Your task to perform on an android device: uninstall "Microsoft Excel" Image 0: 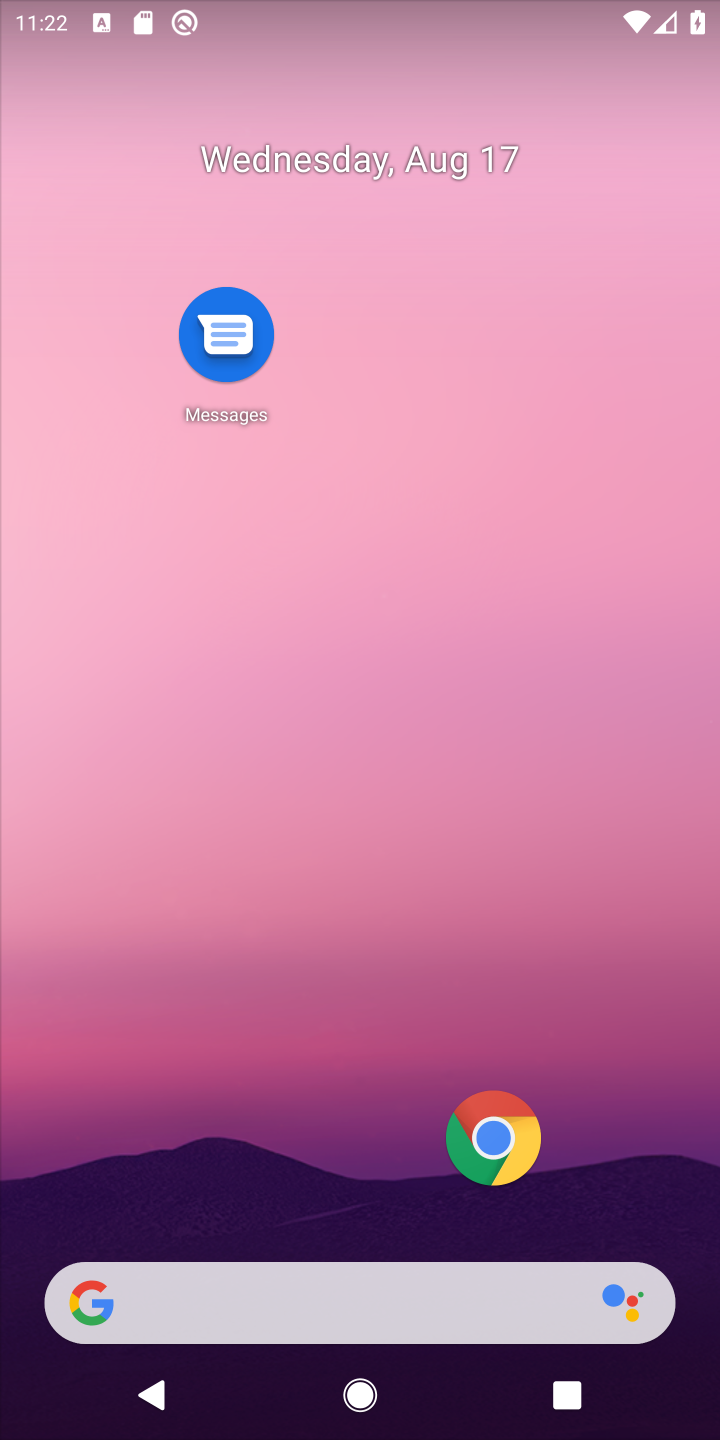
Step 0: drag from (319, 1240) to (350, 483)
Your task to perform on an android device: uninstall "Microsoft Excel" Image 1: 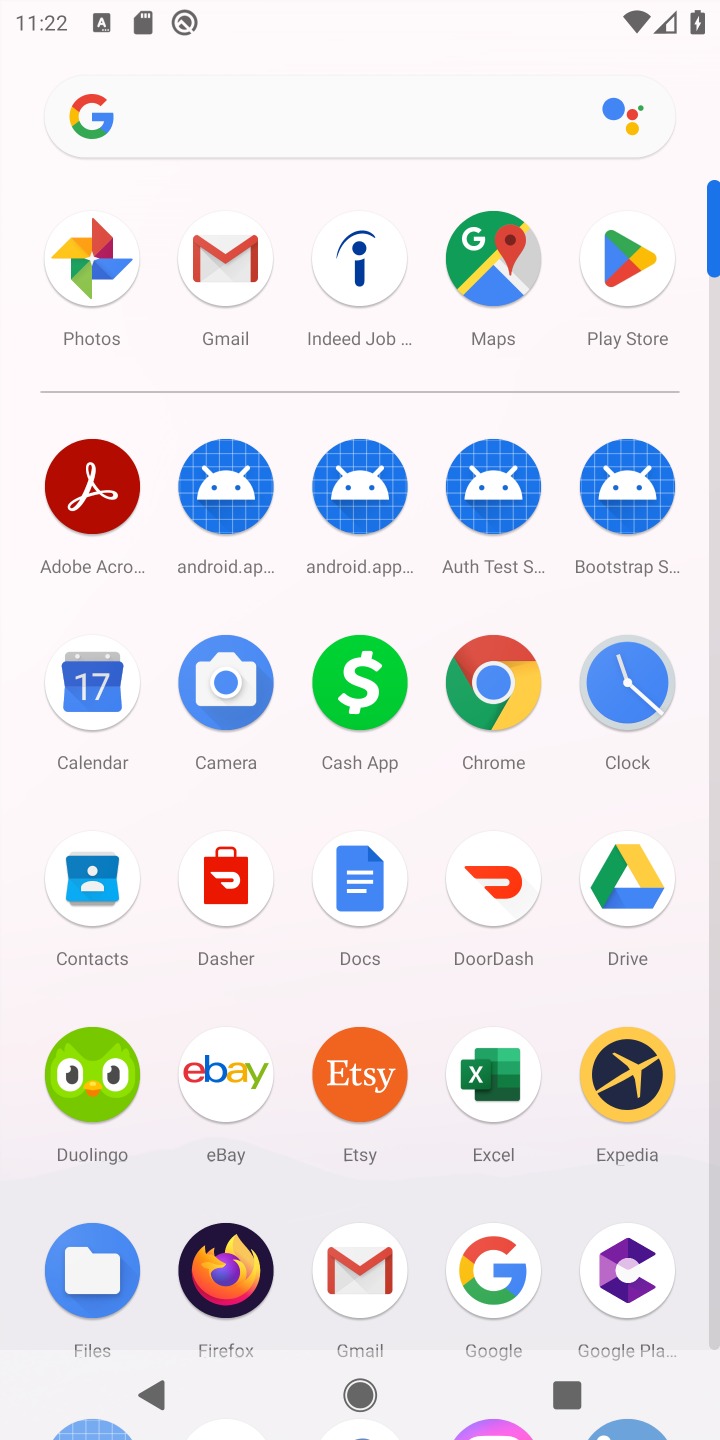
Step 1: click (634, 258)
Your task to perform on an android device: uninstall "Microsoft Excel" Image 2: 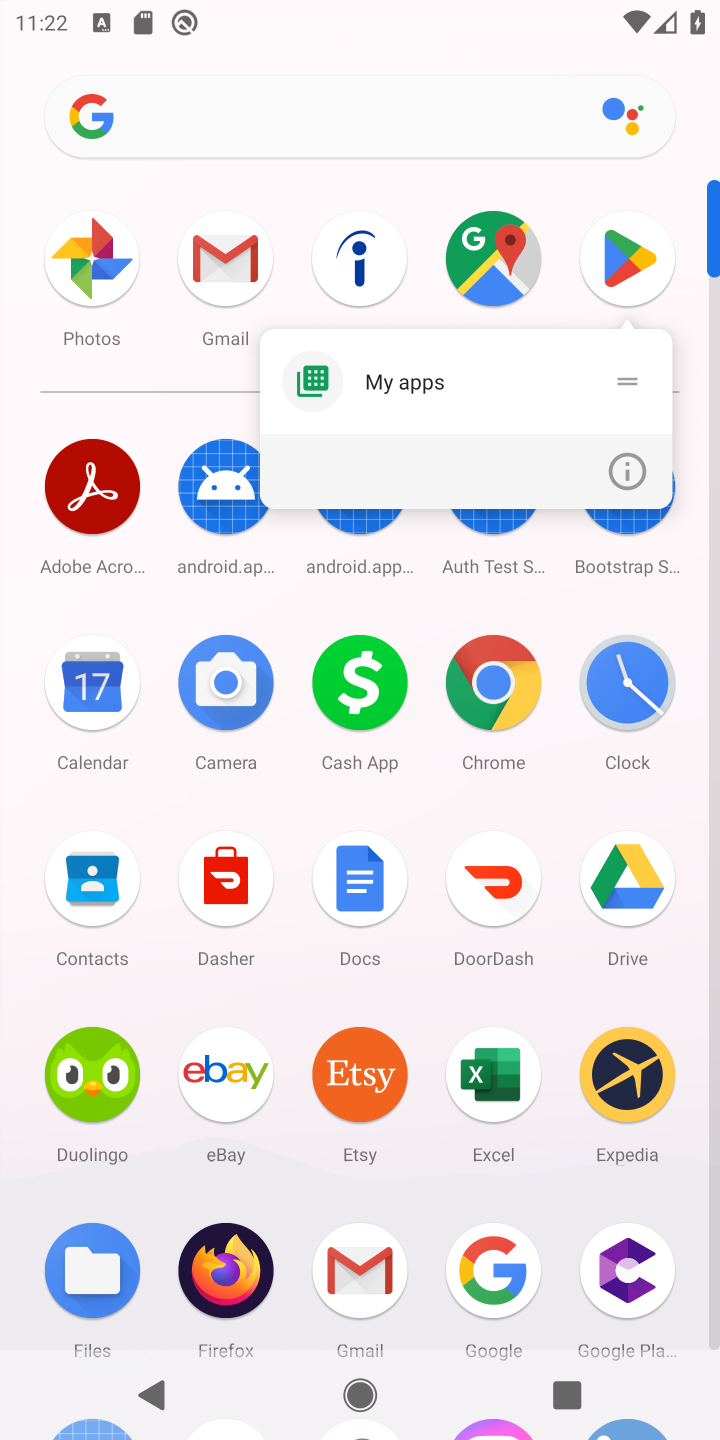
Step 2: click (634, 258)
Your task to perform on an android device: uninstall "Microsoft Excel" Image 3: 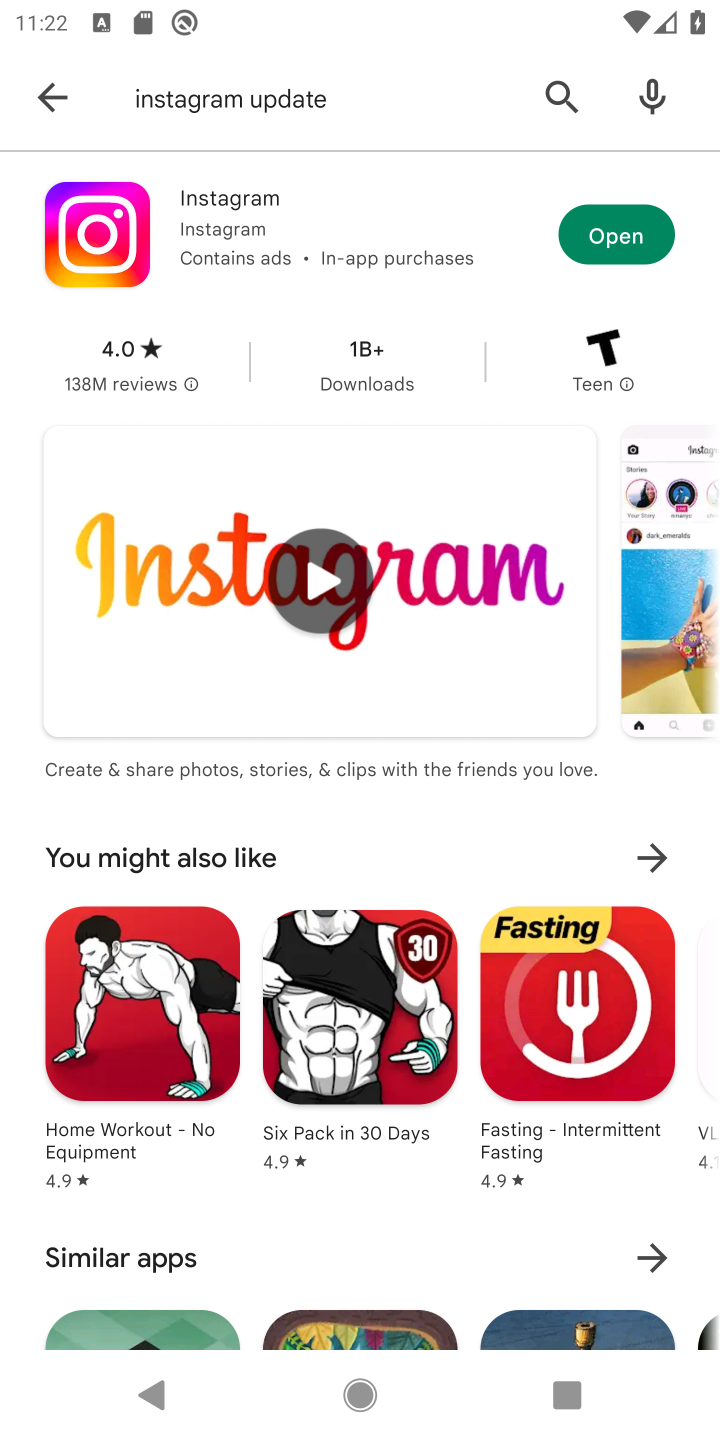
Step 3: click (28, 98)
Your task to perform on an android device: uninstall "Microsoft Excel" Image 4: 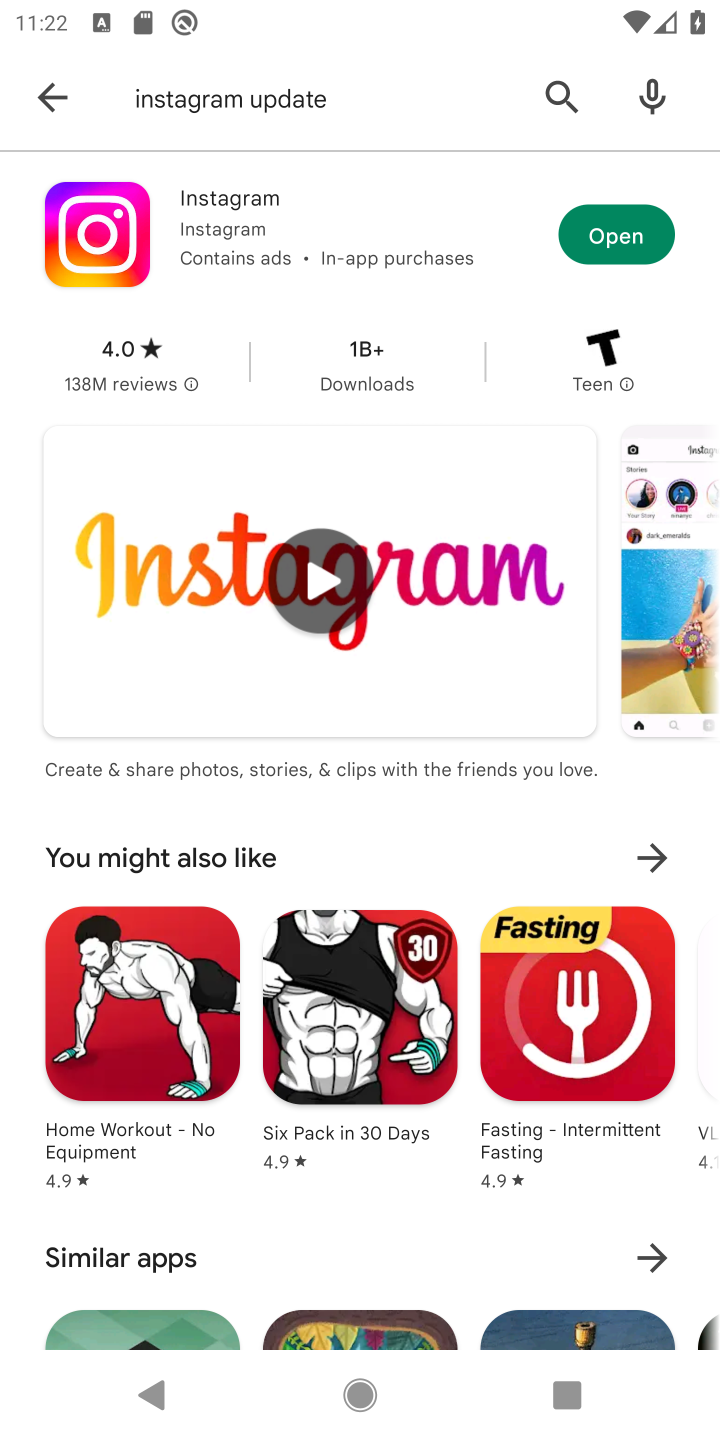
Step 4: click (68, 89)
Your task to perform on an android device: uninstall "Microsoft Excel" Image 5: 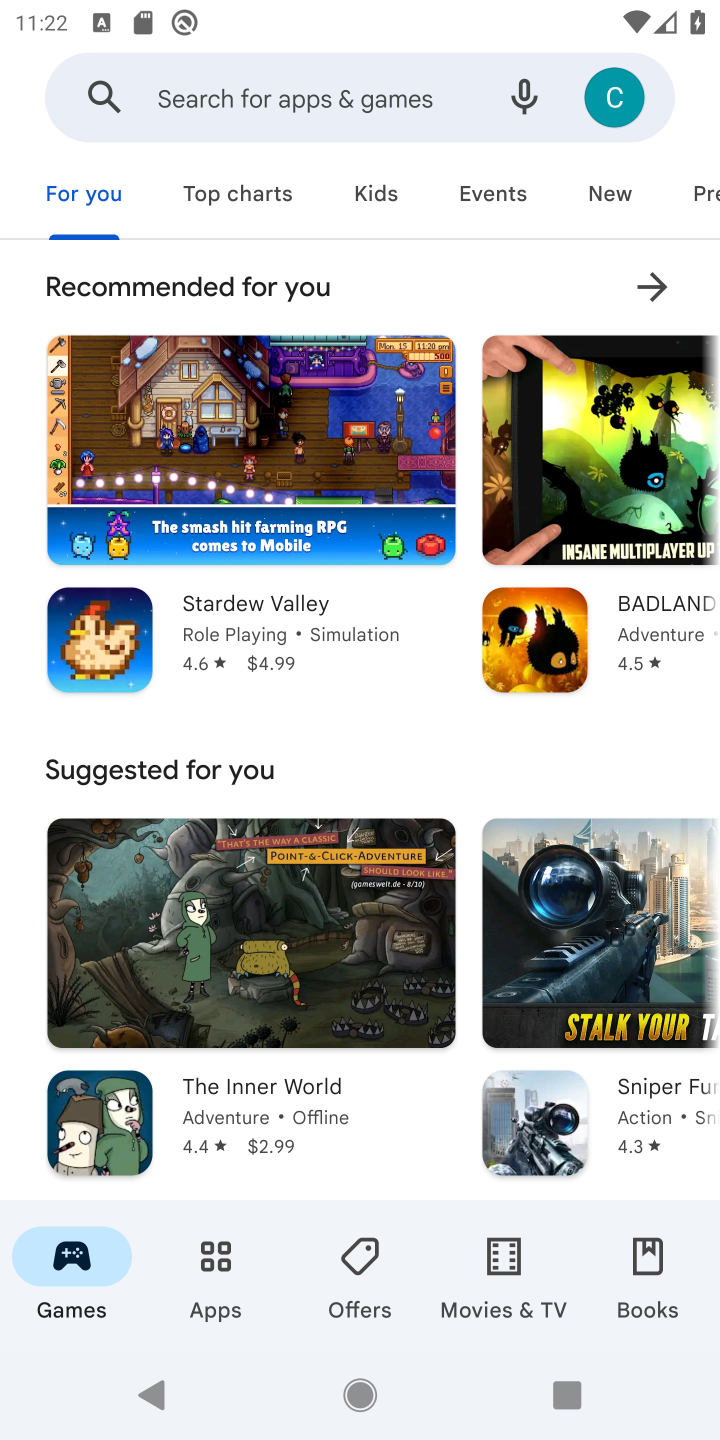
Step 5: click (389, 80)
Your task to perform on an android device: uninstall "Microsoft Excel" Image 6: 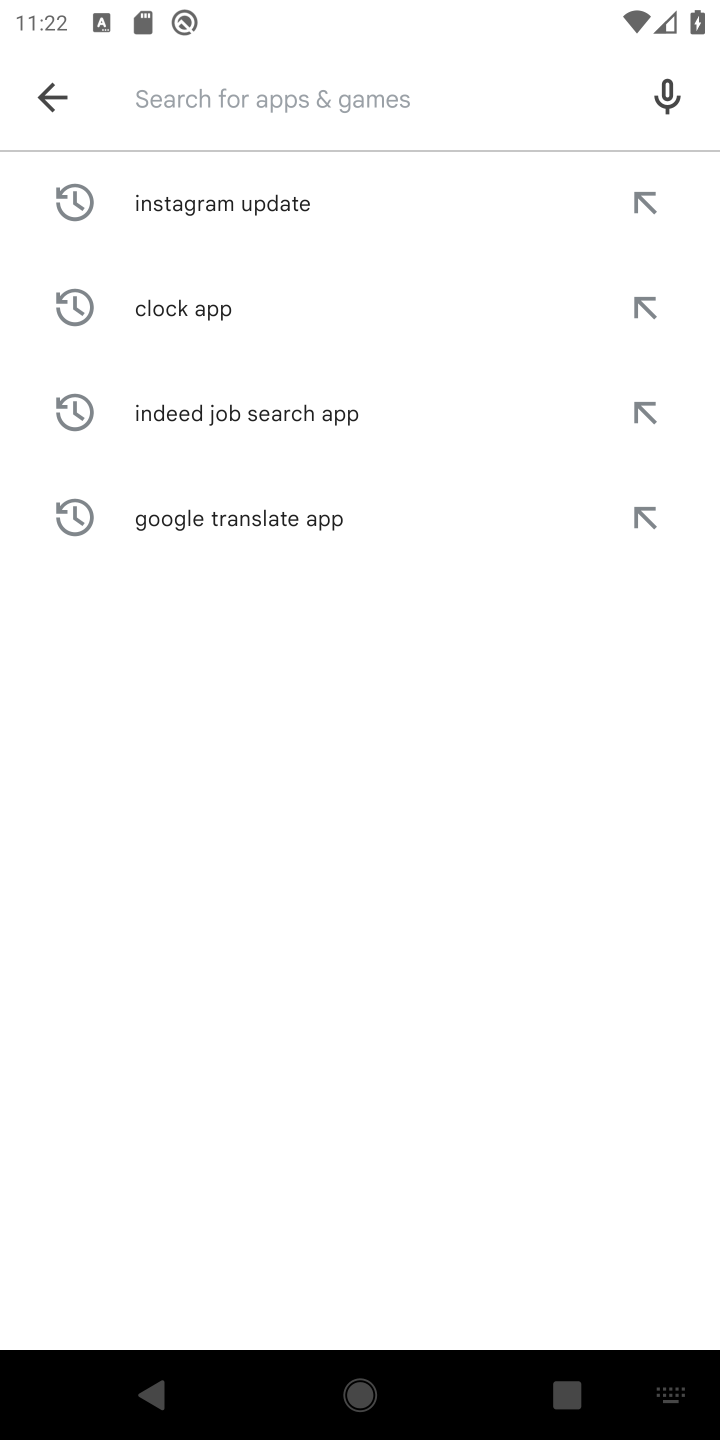
Step 6: type "Microsoft Excel "
Your task to perform on an android device: uninstall "Microsoft Excel" Image 7: 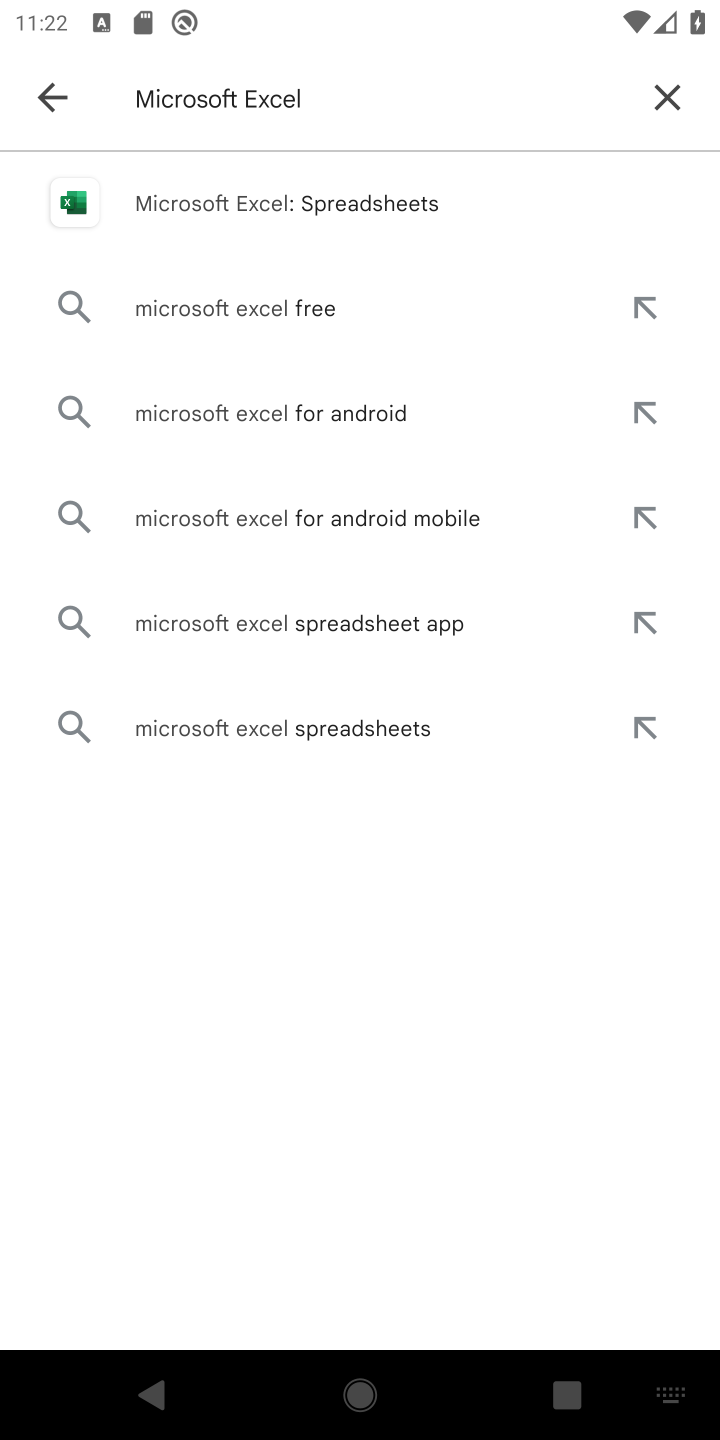
Step 7: click (256, 415)
Your task to perform on an android device: uninstall "Microsoft Excel" Image 8: 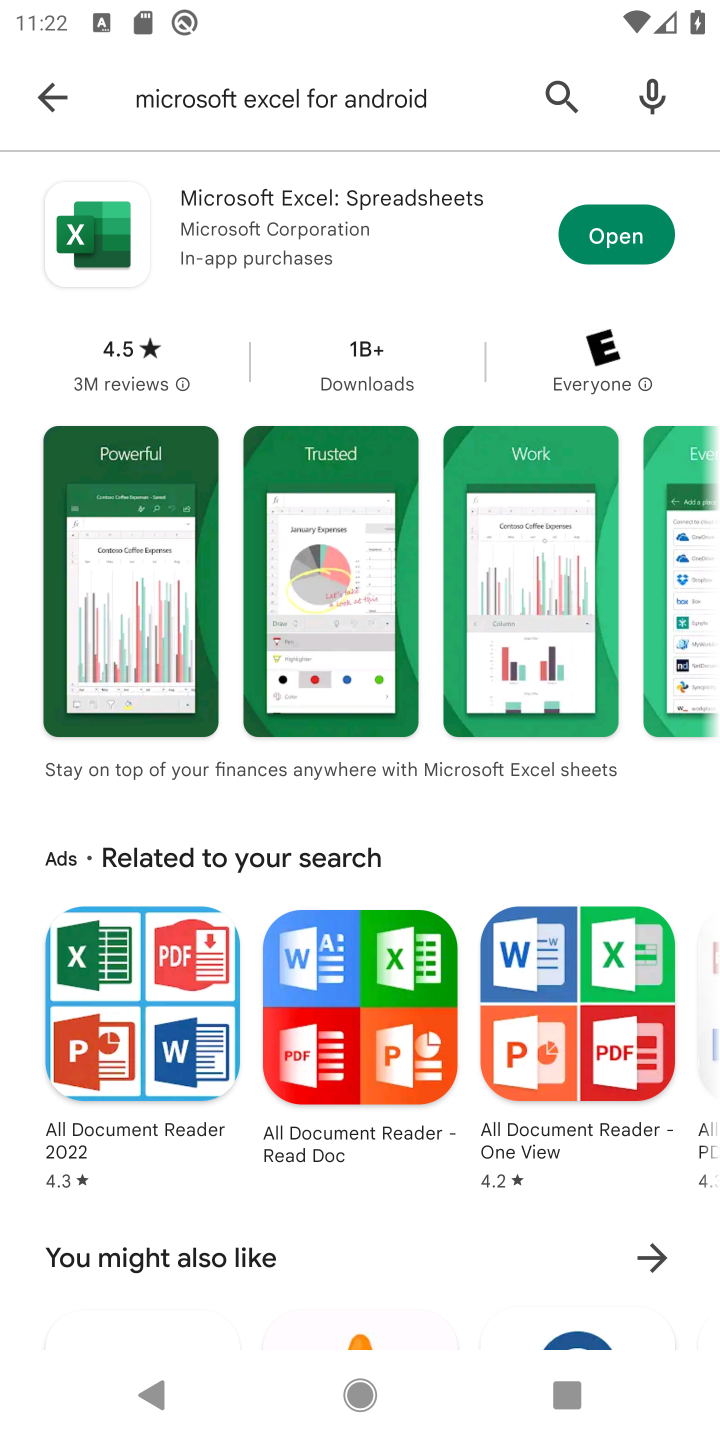
Step 8: click (641, 223)
Your task to perform on an android device: uninstall "Microsoft Excel" Image 9: 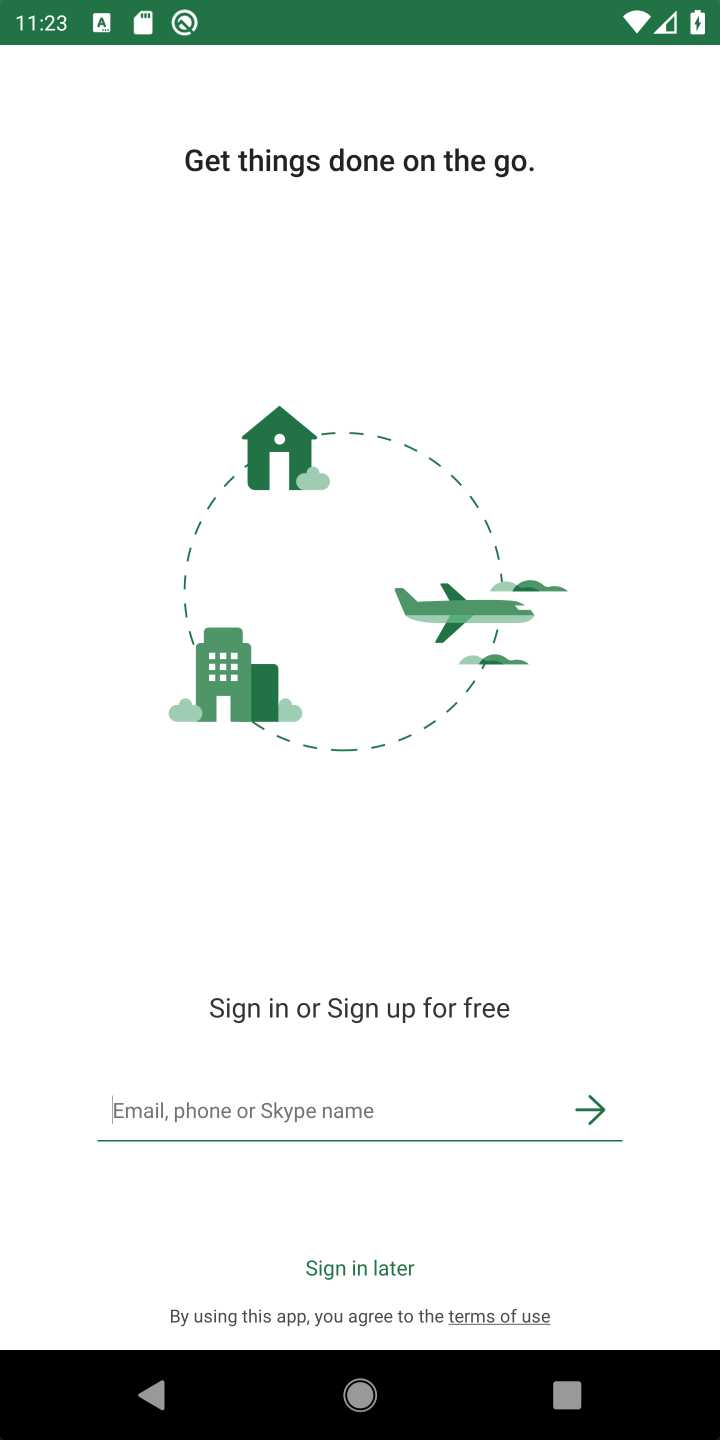
Step 9: press back button
Your task to perform on an android device: uninstall "Microsoft Excel" Image 10: 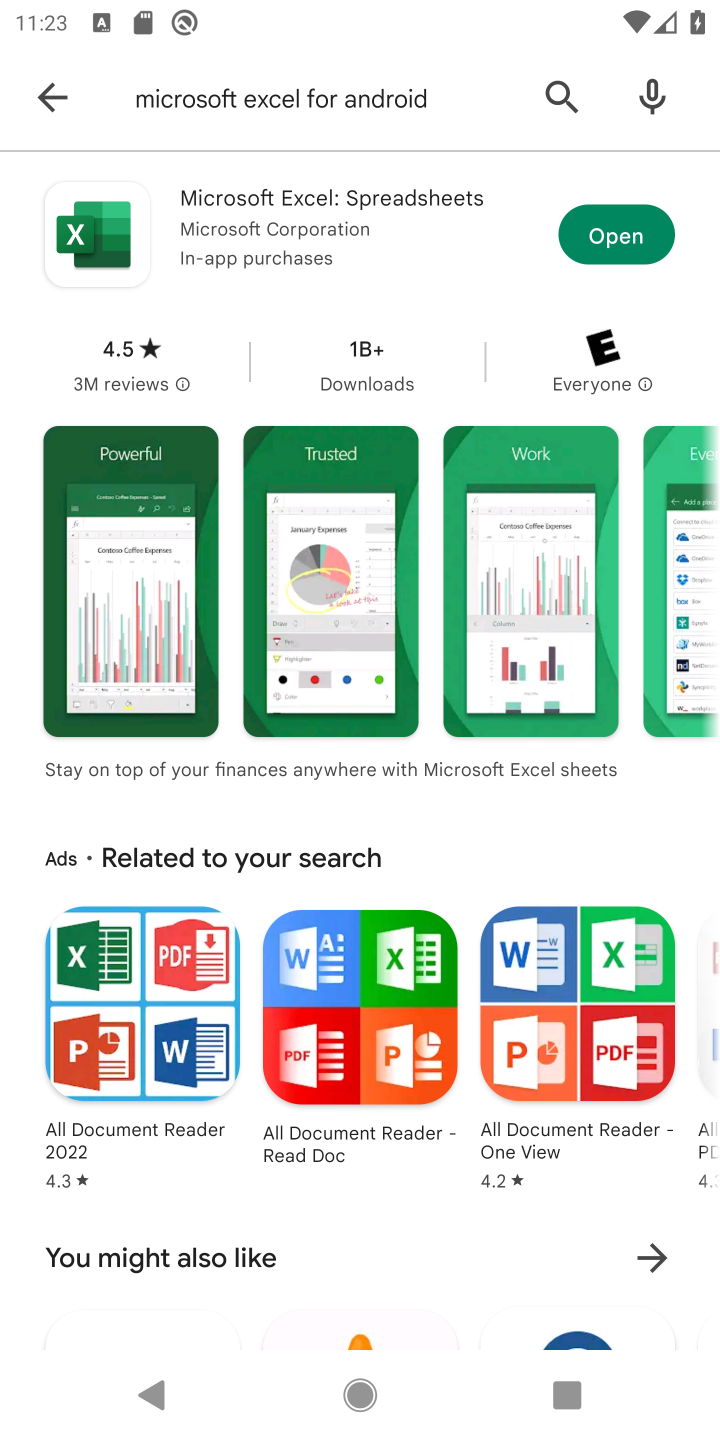
Step 10: click (323, 224)
Your task to perform on an android device: uninstall "Microsoft Excel" Image 11: 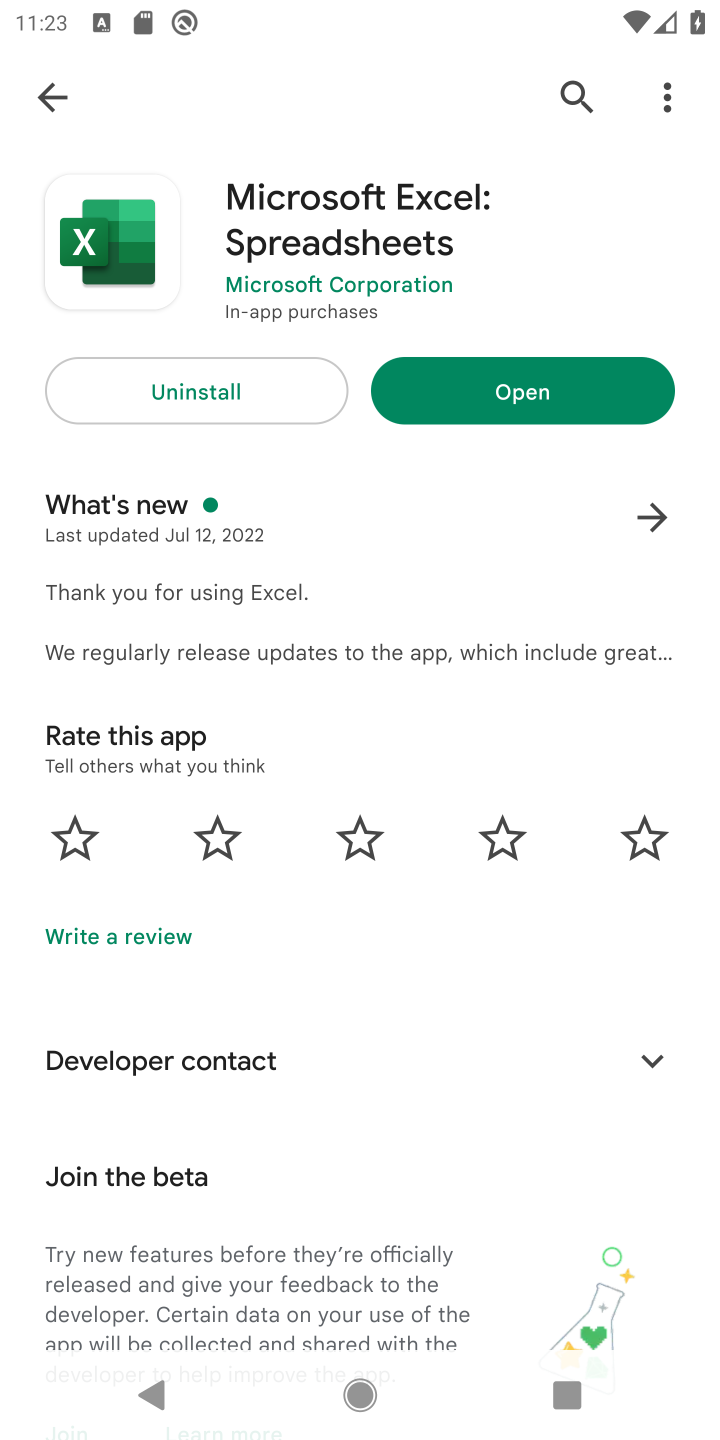
Step 11: click (164, 394)
Your task to perform on an android device: uninstall "Microsoft Excel" Image 12: 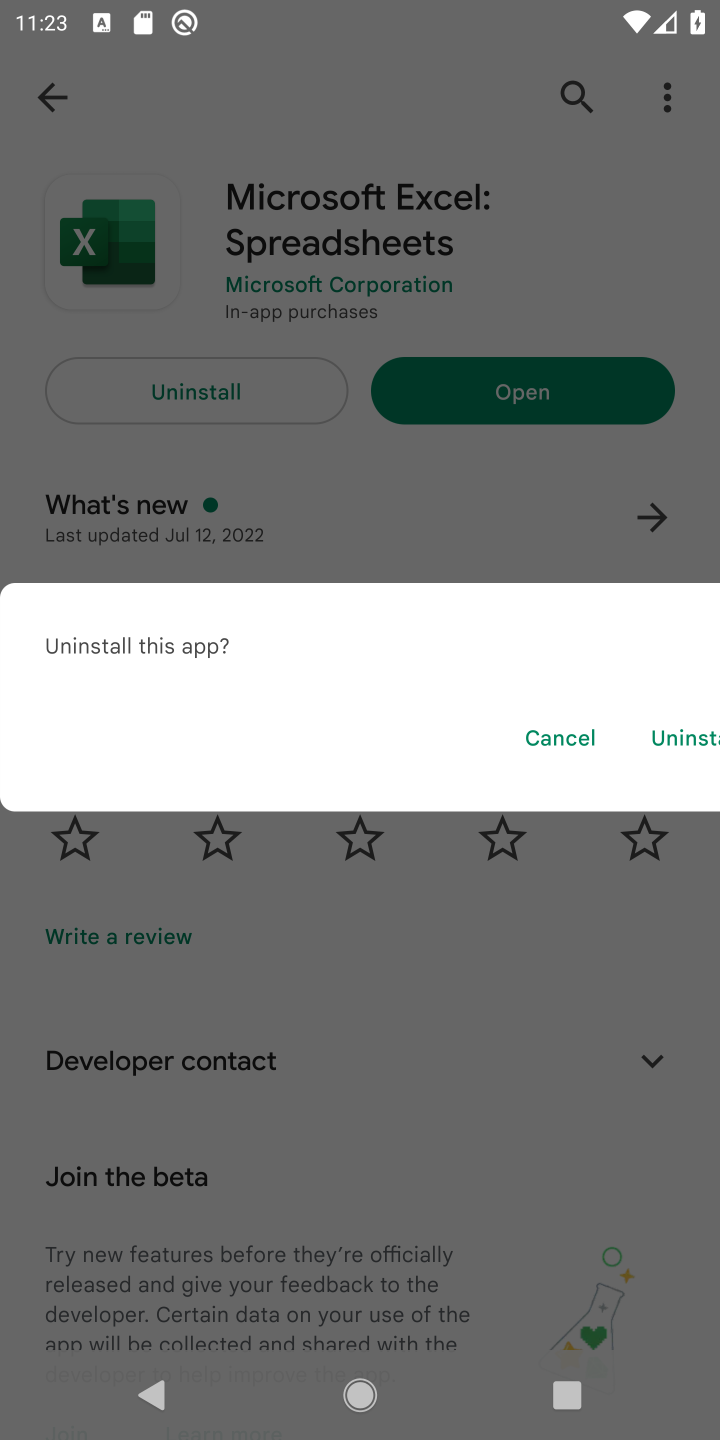
Step 12: click (693, 729)
Your task to perform on an android device: uninstall "Microsoft Excel" Image 13: 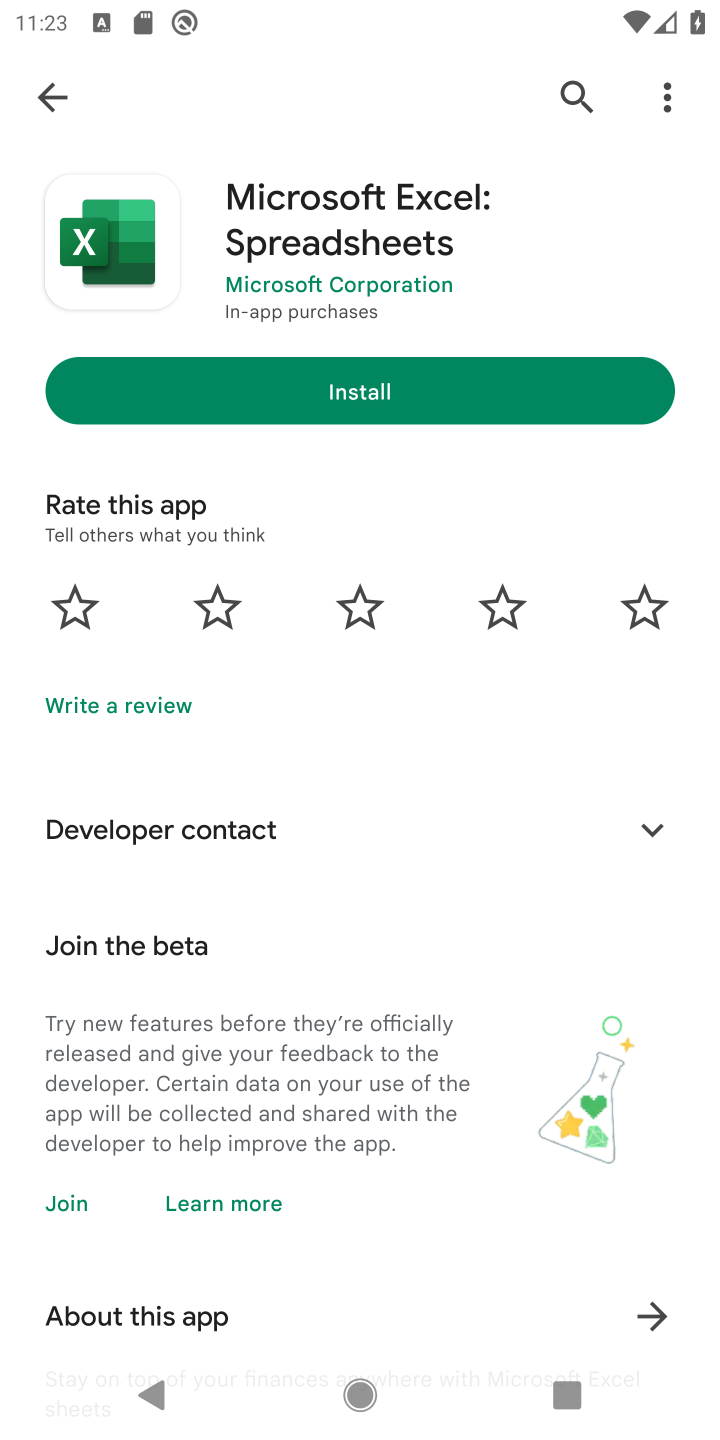
Step 13: task complete